Your task to perform on an android device: change alarm snooze length Image 0: 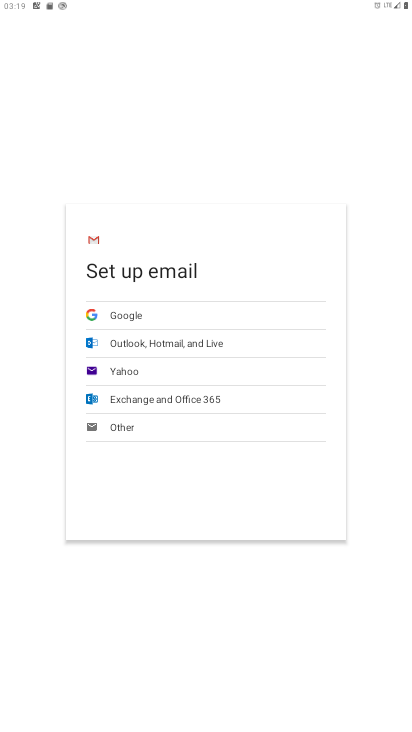
Step 0: press home button
Your task to perform on an android device: change alarm snooze length Image 1: 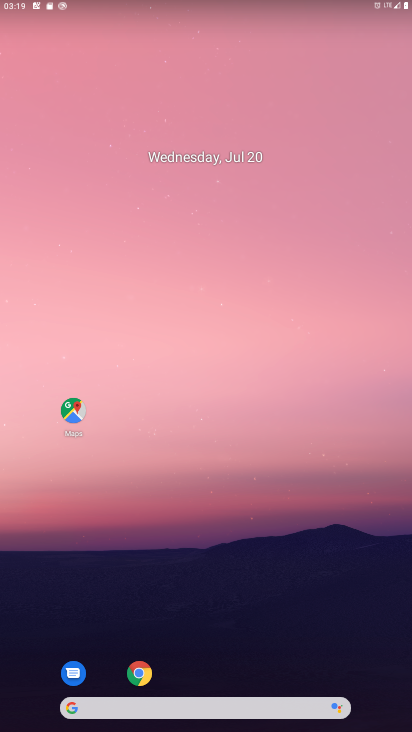
Step 1: drag from (221, 645) to (218, 127)
Your task to perform on an android device: change alarm snooze length Image 2: 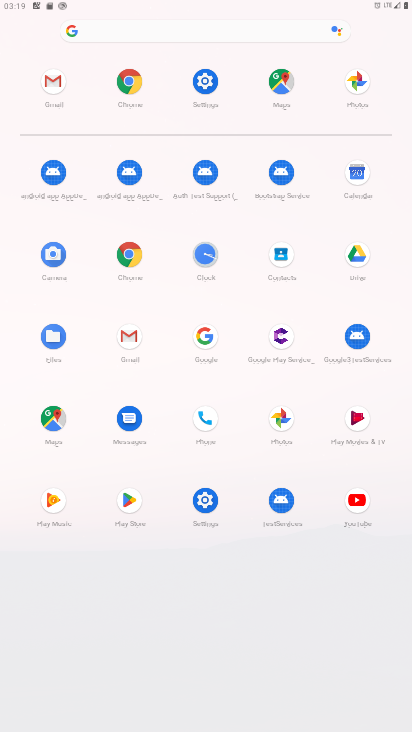
Step 2: click (209, 514)
Your task to perform on an android device: change alarm snooze length Image 3: 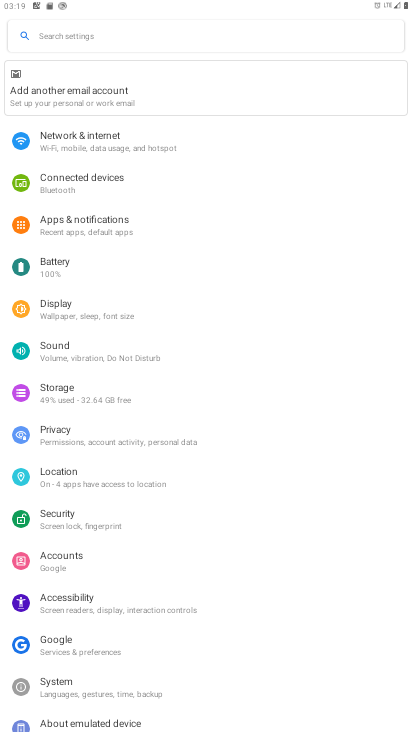
Step 3: press home button
Your task to perform on an android device: change alarm snooze length Image 4: 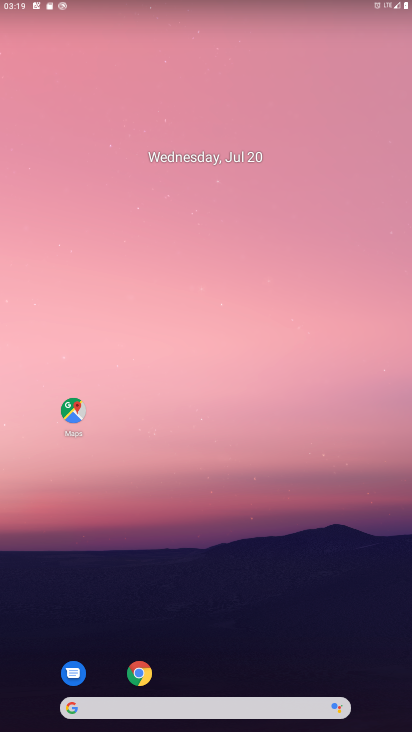
Step 4: drag from (217, 511) to (231, 28)
Your task to perform on an android device: change alarm snooze length Image 5: 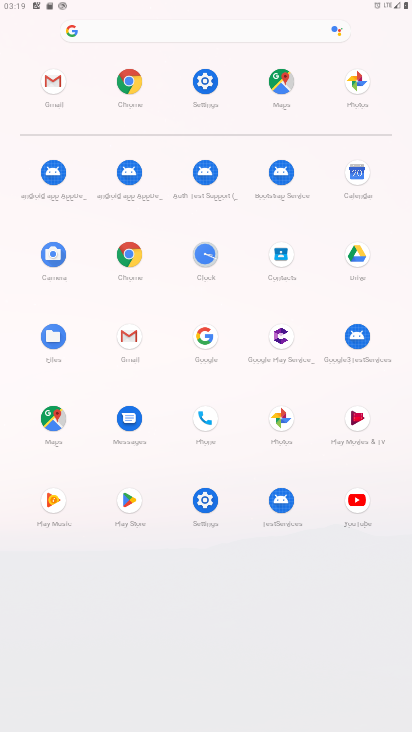
Step 5: click (207, 257)
Your task to perform on an android device: change alarm snooze length Image 6: 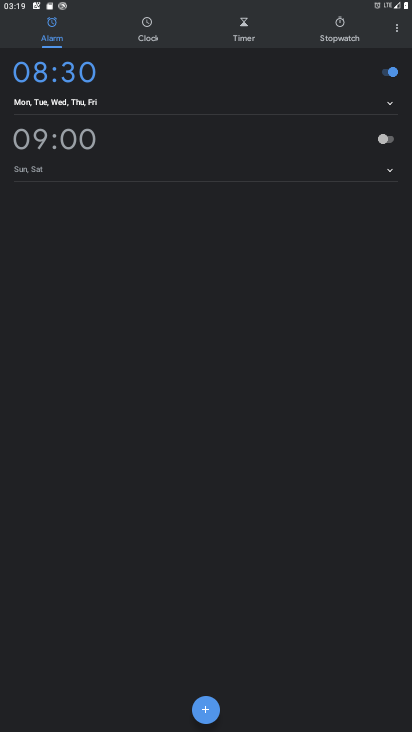
Step 6: click (393, 28)
Your task to perform on an android device: change alarm snooze length Image 7: 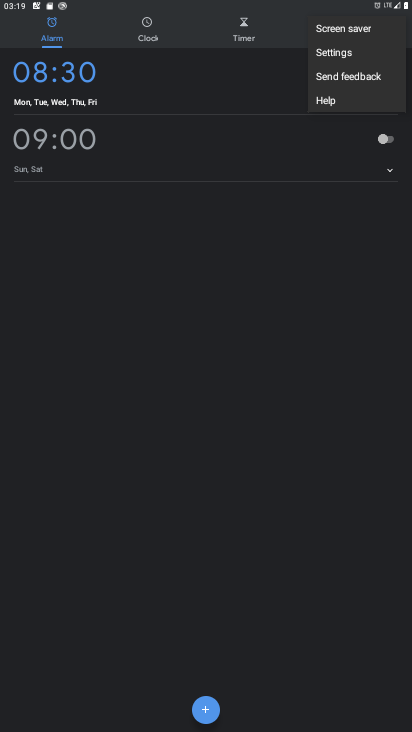
Step 7: click (322, 56)
Your task to perform on an android device: change alarm snooze length Image 8: 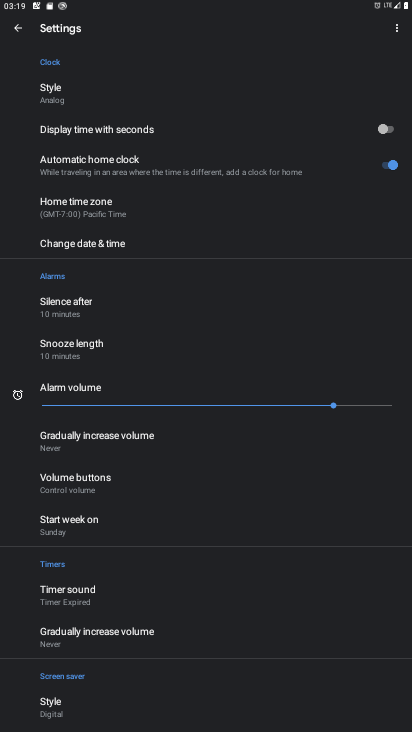
Step 8: click (93, 355)
Your task to perform on an android device: change alarm snooze length Image 9: 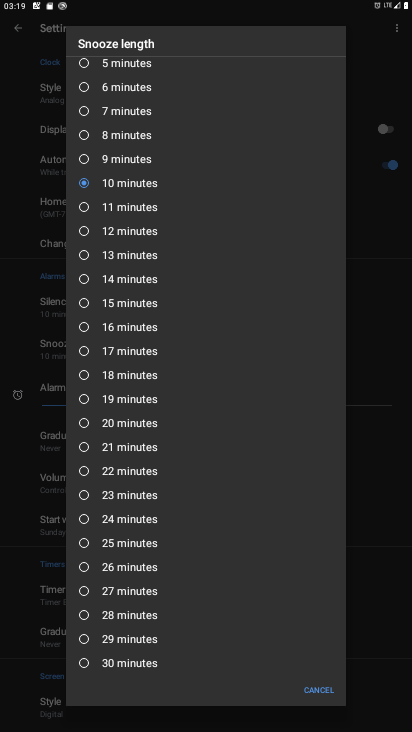
Step 9: click (90, 414)
Your task to perform on an android device: change alarm snooze length Image 10: 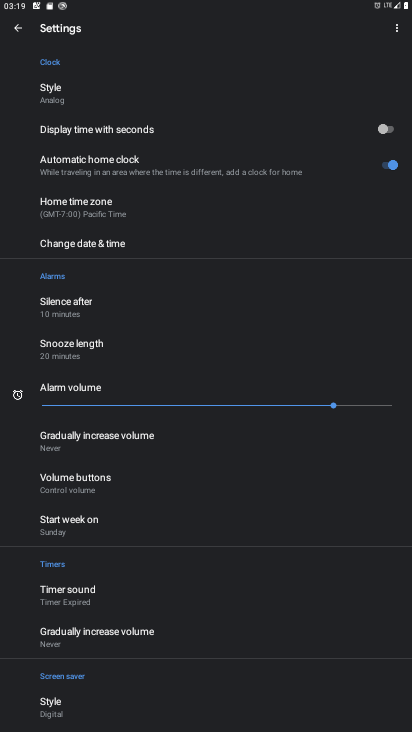
Step 10: task complete